Your task to perform on an android device: Go to sound settings Image 0: 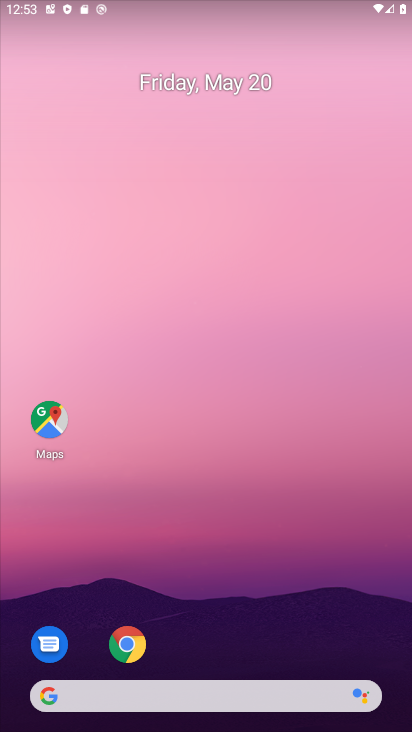
Step 0: click (332, 41)
Your task to perform on an android device: Go to sound settings Image 1: 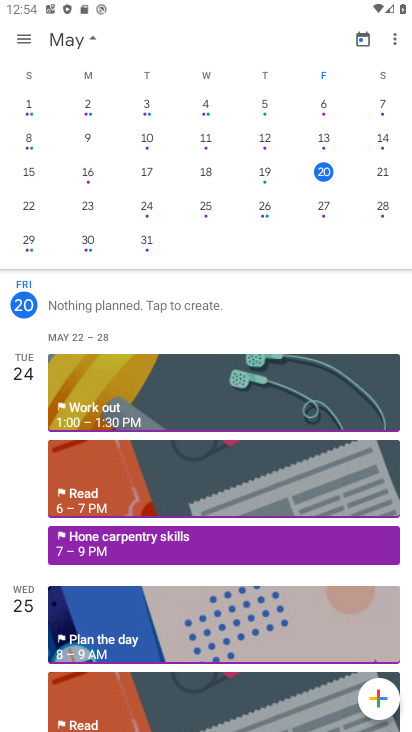
Step 1: press home button
Your task to perform on an android device: Go to sound settings Image 2: 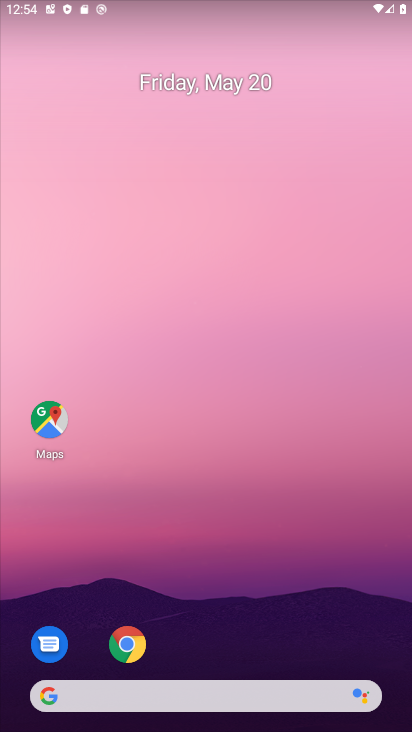
Step 2: drag from (291, 416) to (323, 4)
Your task to perform on an android device: Go to sound settings Image 3: 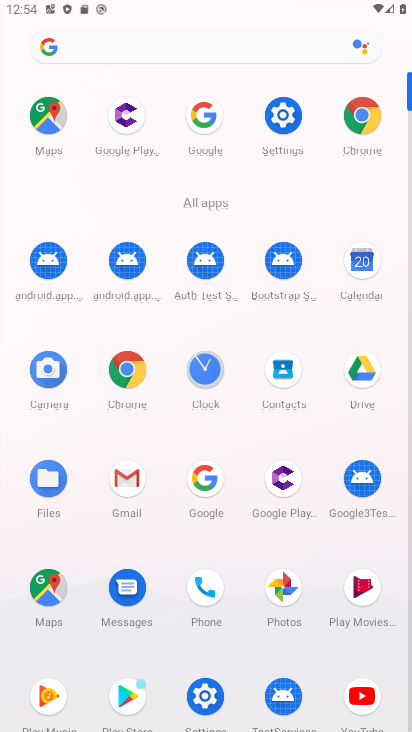
Step 3: click (272, 116)
Your task to perform on an android device: Go to sound settings Image 4: 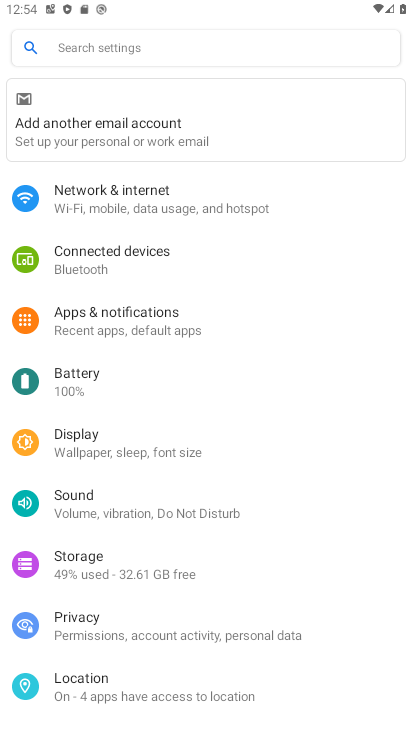
Step 4: click (104, 499)
Your task to perform on an android device: Go to sound settings Image 5: 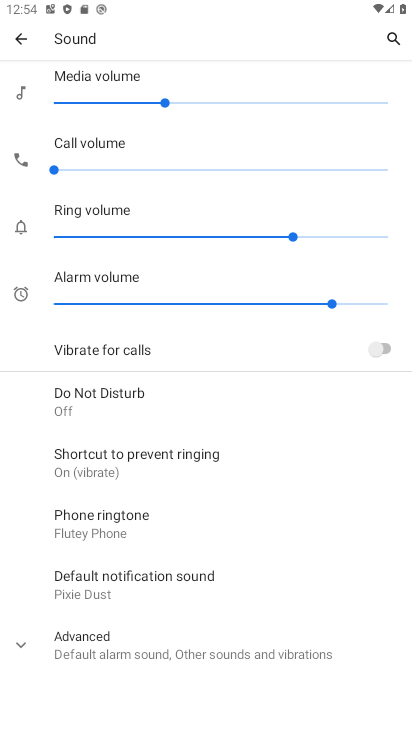
Step 5: task complete